Your task to perform on an android device: turn on wifi Image 0: 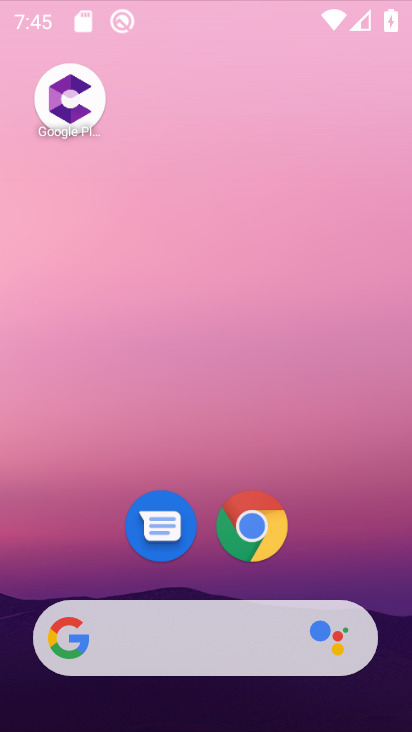
Step 0: click (391, 673)
Your task to perform on an android device: turn on wifi Image 1: 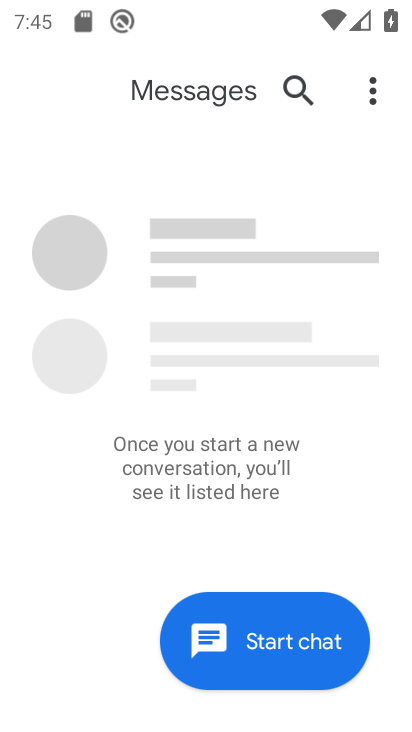
Step 1: click (392, 230)
Your task to perform on an android device: turn on wifi Image 2: 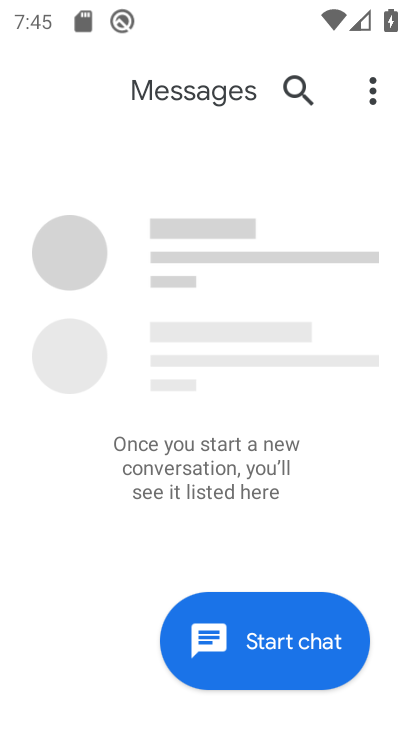
Step 2: press home button
Your task to perform on an android device: turn on wifi Image 3: 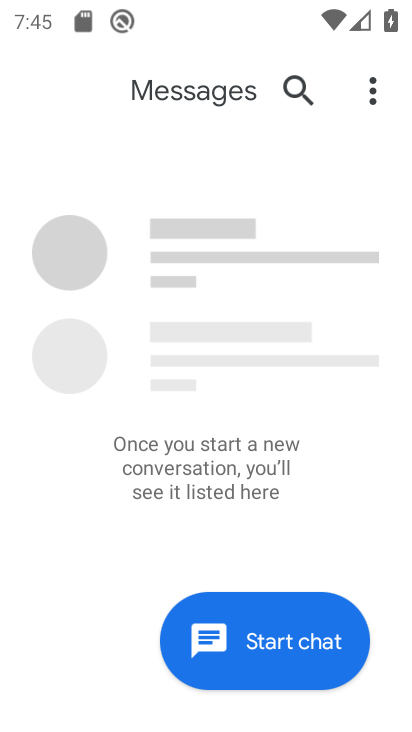
Step 3: drag from (392, 230) to (387, 191)
Your task to perform on an android device: turn on wifi Image 4: 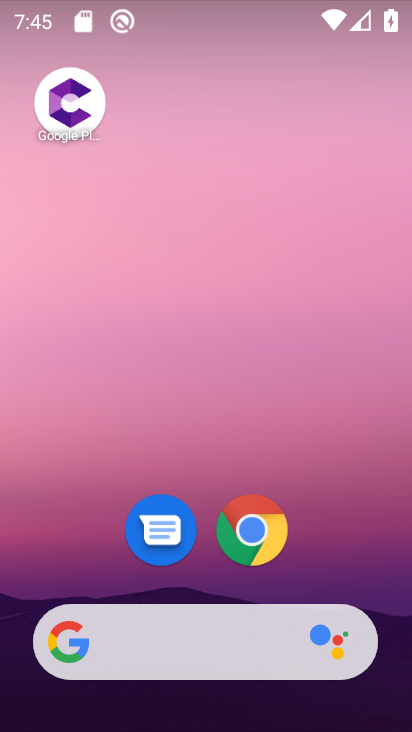
Step 4: drag from (209, 550) to (88, 17)
Your task to perform on an android device: turn on wifi Image 5: 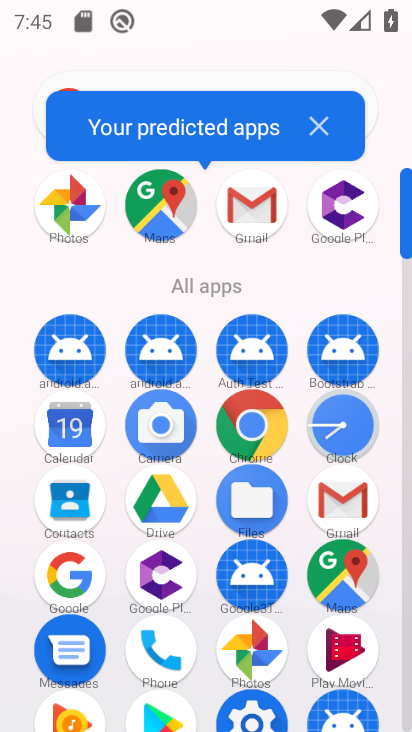
Step 5: click (250, 700)
Your task to perform on an android device: turn on wifi Image 6: 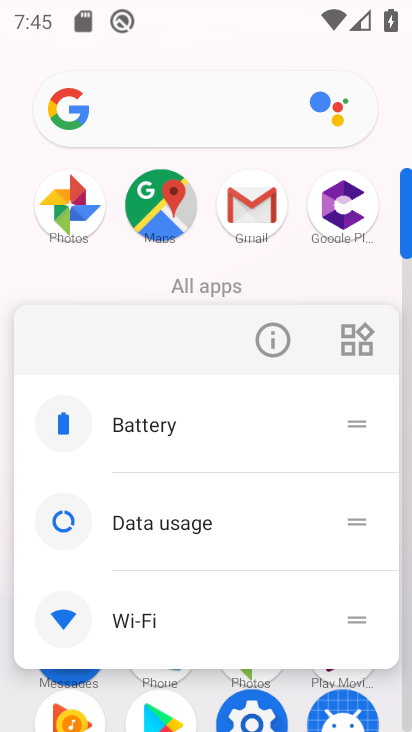
Step 6: click (269, 367)
Your task to perform on an android device: turn on wifi Image 7: 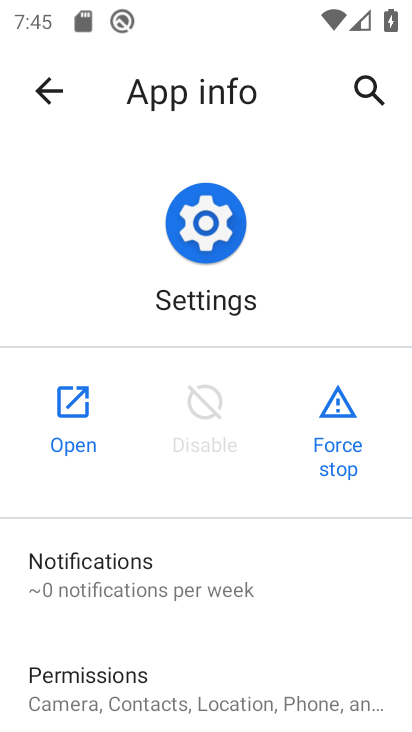
Step 7: click (76, 413)
Your task to perform on an android device: turn on wifi Image 8: 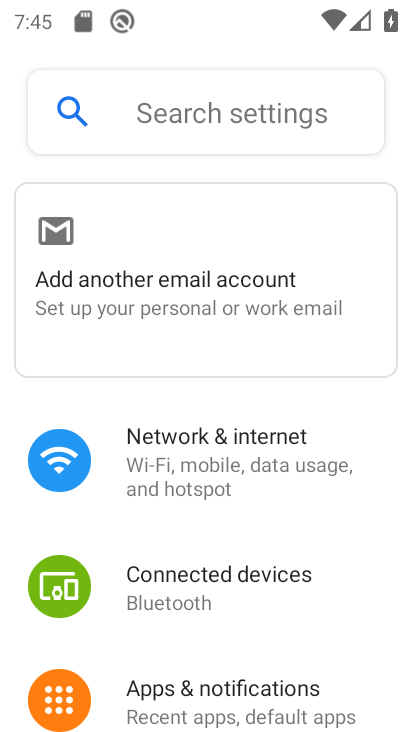
Step 8: click (233, 445)
Your task to perform on an android device: turn on wifi Image 9: 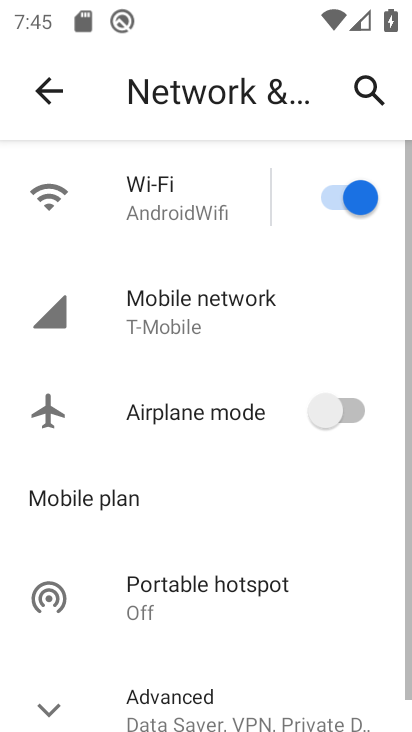
Step 9: click (202, 211)
Your task to perform on an android device: turn on wifi Image 10: 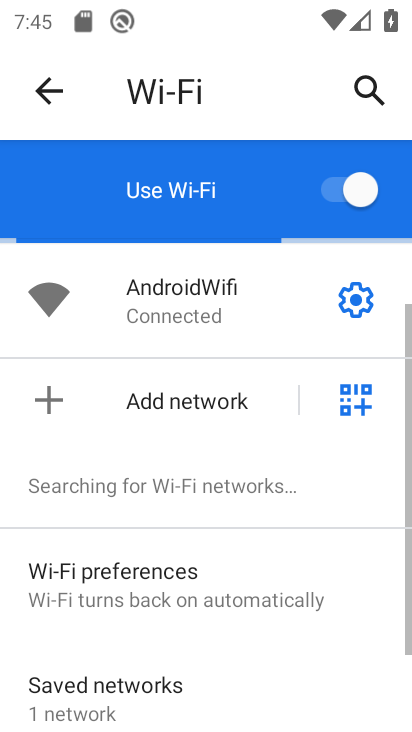
Step 10: task complete